Your task to perform on an android device: turn off data saver in the chrome app Image 0: 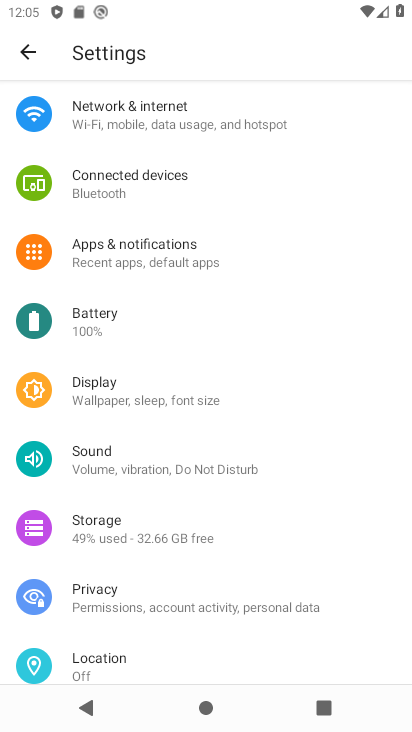
Step 0: press home button
Your task to perform on an android device: turn off data saver in the chrome app Image 1: 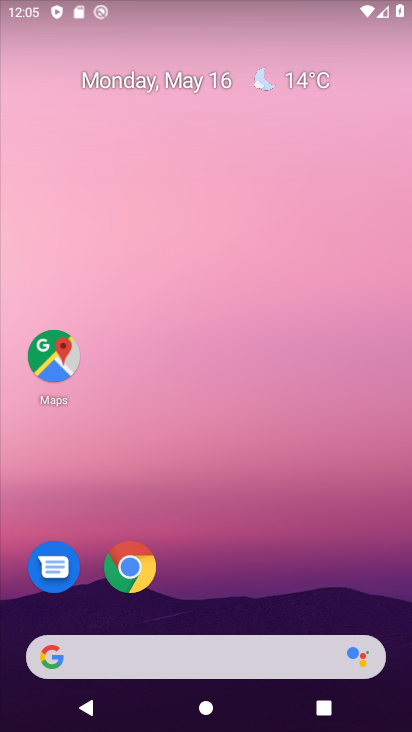
Step 1: click (135, 569)
Your task to perform on an android device: turn off data saver in the chrome app Image 2: 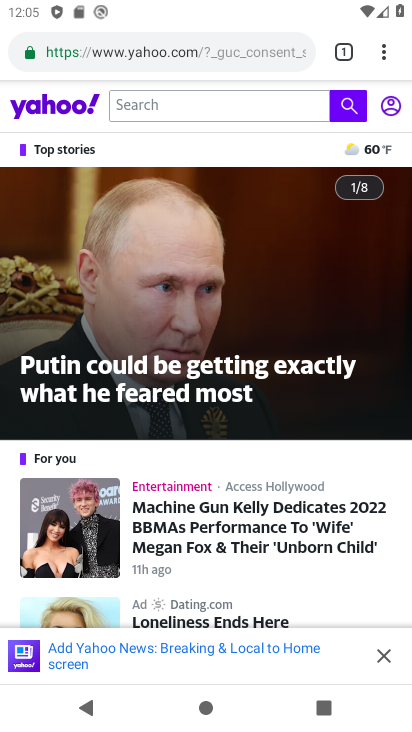
Step 2: click (385, 57)
Your task to perform on an android device: turn off data saver in the chrome app Image 3: 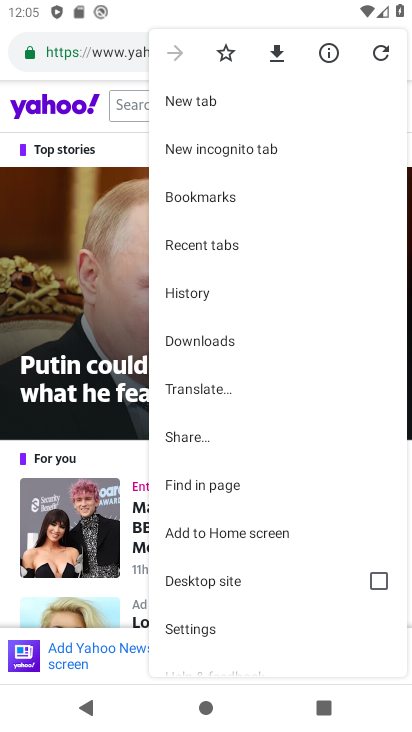
Step 3: click (198, 622)
Your task to perform on an android device: turn off data saver in the chrome app Image 4: 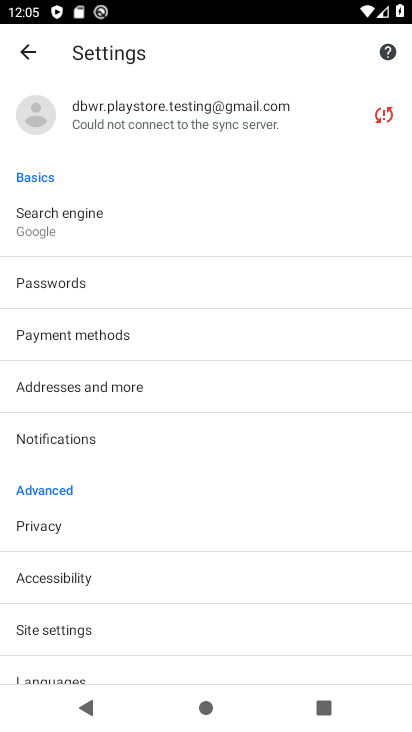
Step 4: drag from (229, 436) to (175, 220)
Your task to perform on an android device: turn off data saver in the chrome app Image 5: 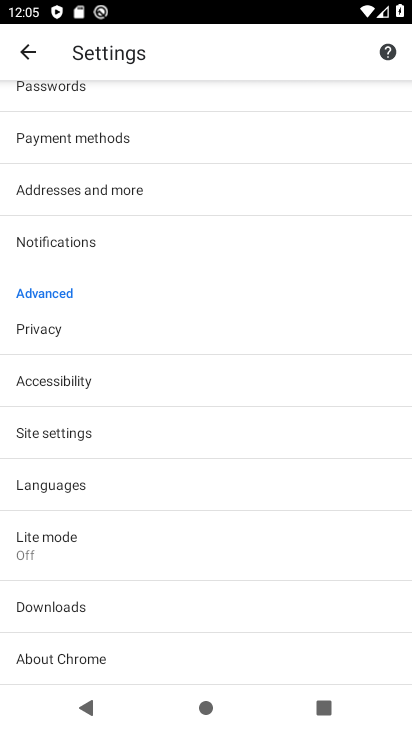
Step 5: click (50, 540)
Your task to perform on an android device: turn off data saver in the chrome app Image 6: 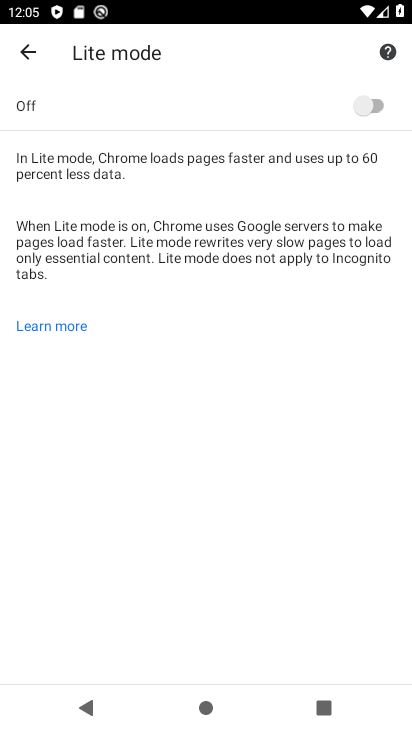
Step 6: task complete